Your task to perform on an android device: manage bookmarks in the chrome app Image 0: 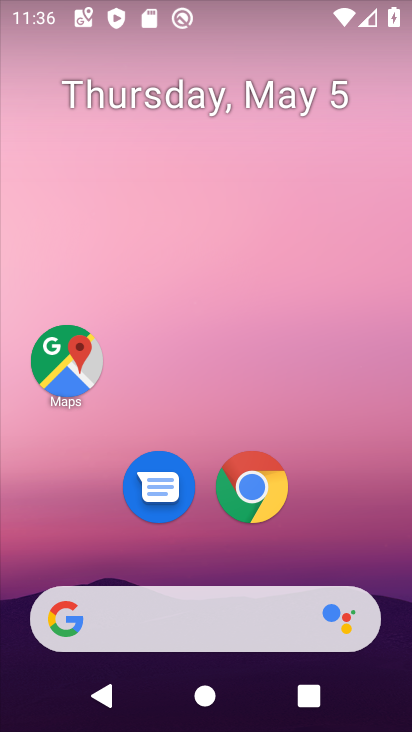
Step 0: click (241, 470)
Your task to perform on an android device: manage bookmarks in the chrome app Image 1: 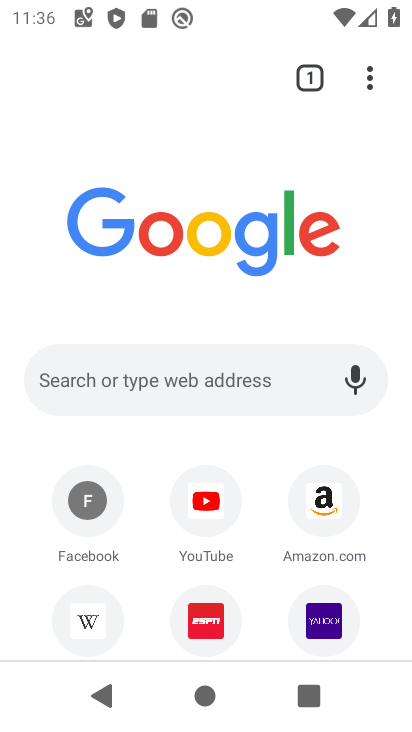
Step 1: click (385, 90)
Your task to perform on an android device: manage bookmarks in the chrome app Image 2: 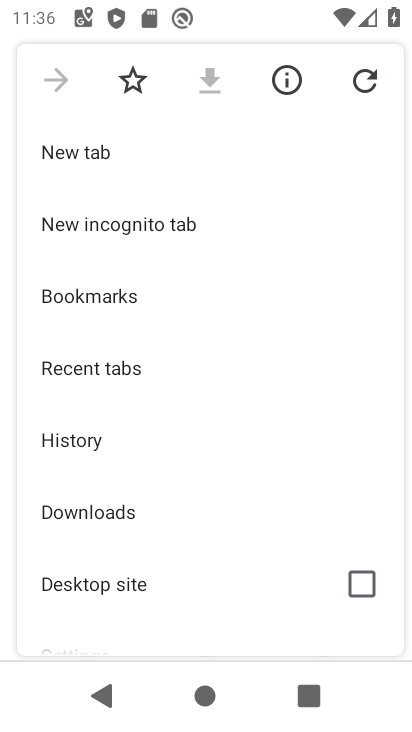
Step 2: click (206, 277)
Your task to perform on an android device: manage bookmarks in the chrome app Image 3: 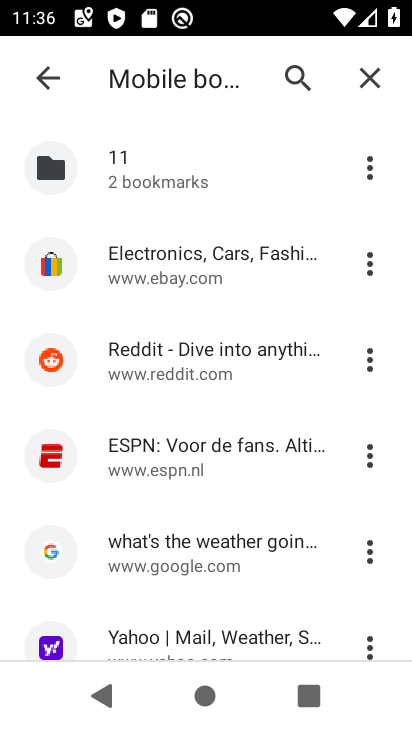
Step 3: click (373, 169)
Your task to perform on an android device: manage bookmarks in the chrome app Image 4: 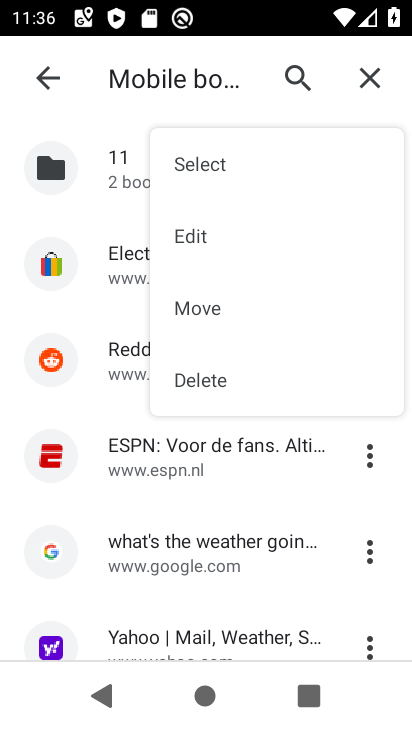
Step 4: click (252, 371)
Your task to perform on an android device: manage bookmarks in the chrome app Image 5: 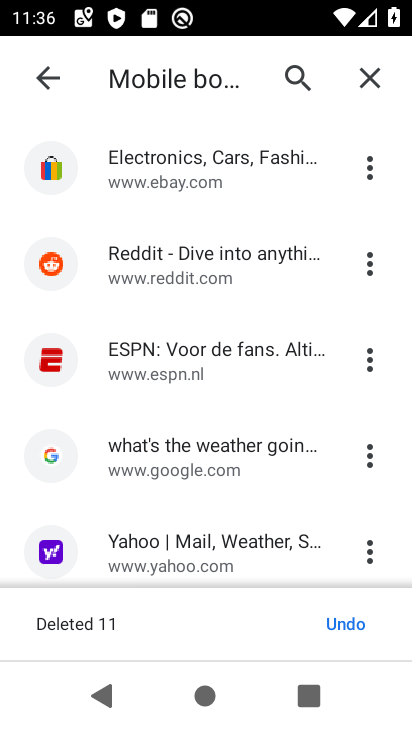
Step 5: task complete